Your task to perform on an android device: toggle notification dots Image 0: 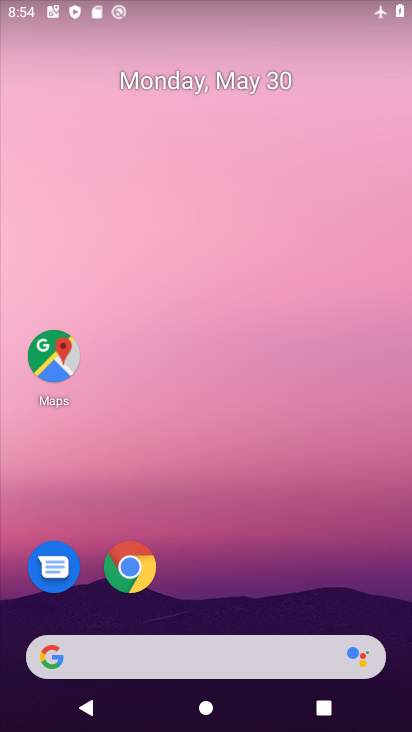
Step 0: drag from (208, 566) to (259, 91)
Your task to perform on an android device: toggle notification dots Image 1: 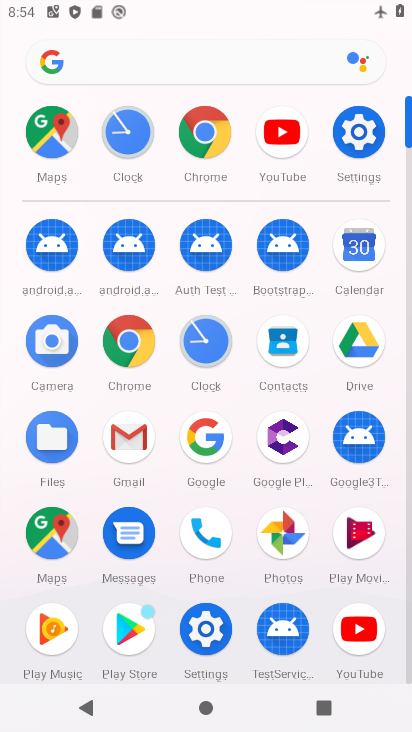
Step 1: click (341, 149)
Your task to perform on an android device: toggle notification dots Image 2: 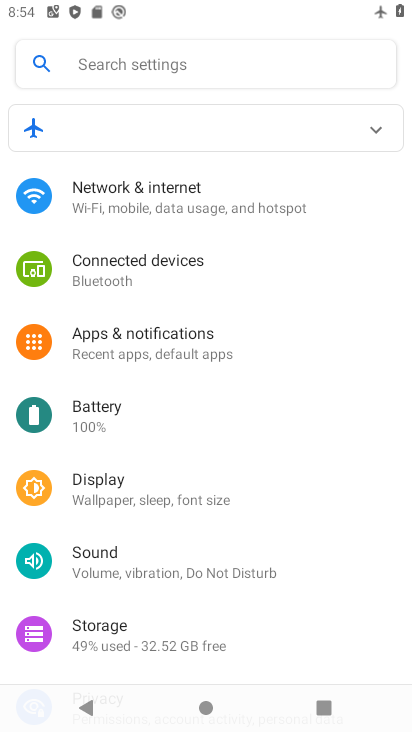
Step 2: click (211, 355)
Your task to perform on an android device: toggle notification dots Image 3: 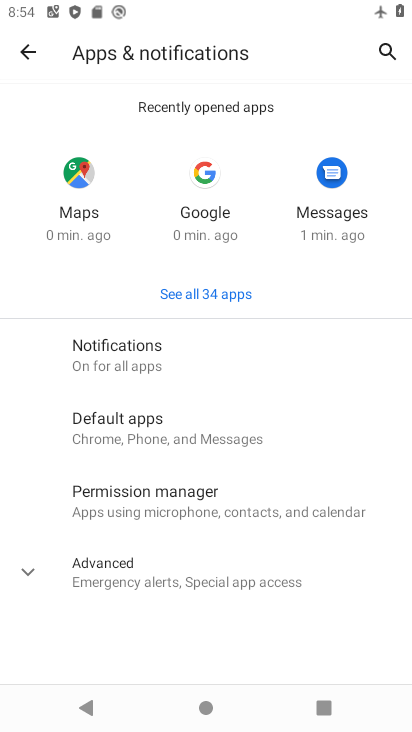
Step 3: click (211, 355)
Your task to perform on an android device: toggle notification dots Image 4: 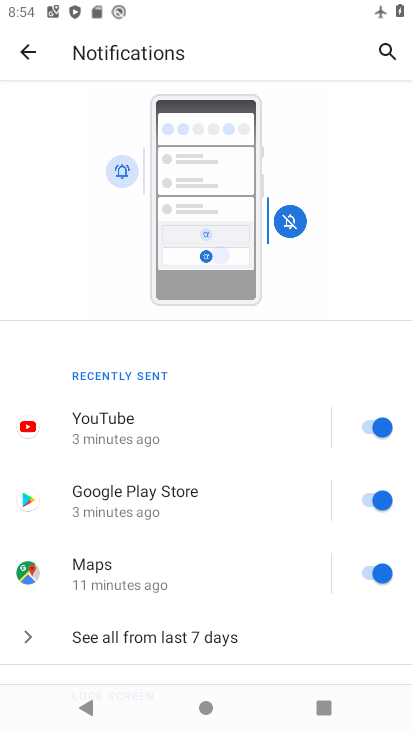
Step 4: drag from (174, 599) to (192, 259)
Your task to perform on an android device: toggle notification dots Image 5: 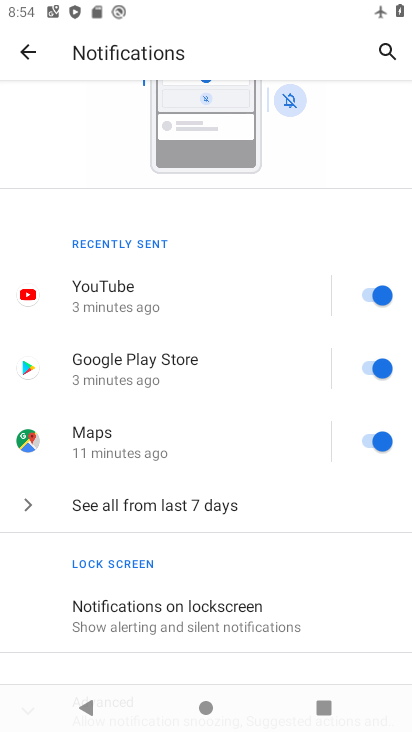
Step 5: drag from (181, 537) to (210, 143)
Your task to perform on an android device: toggle notification dots Image 6: 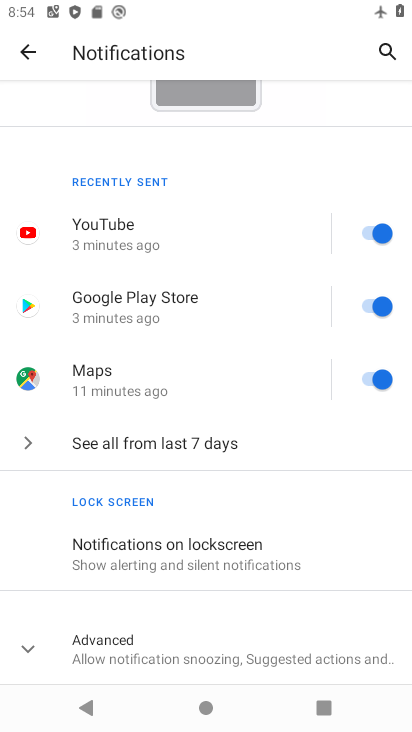
Step 6: click (182, 646)
Your task to perform on an android device: toggle notification dots Image 7: 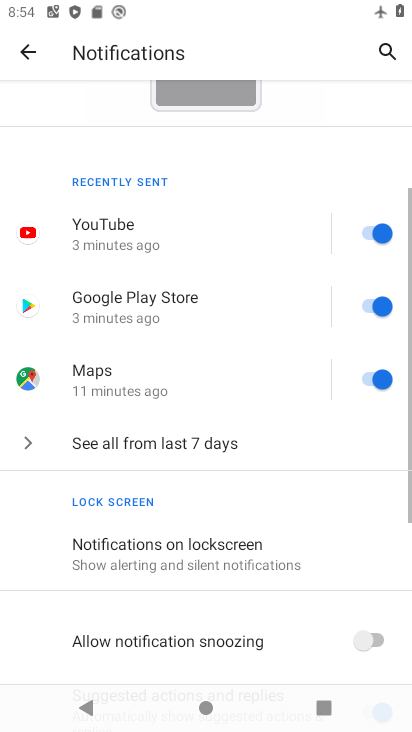
Step 7: drag from (182, 646) to (176, 285)
Your task to perform on an android device: toggle notification dots Image 8: 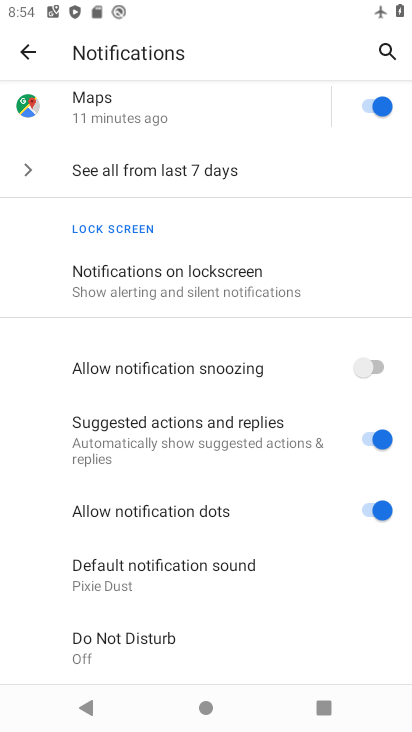
Step 8: click (373, 522)
Your task to perform on an android device: toggle notification dots Image 9: 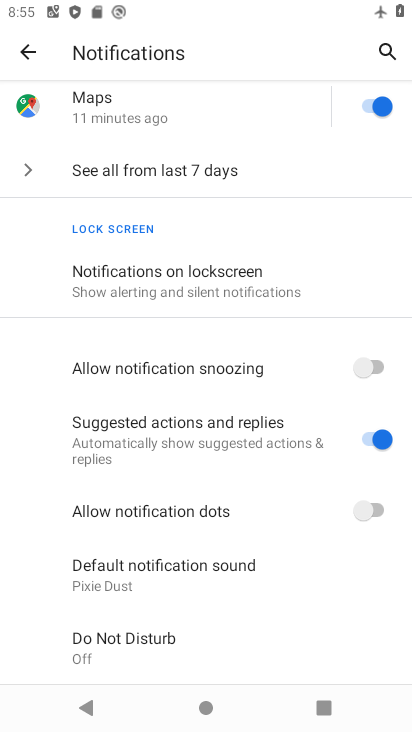
Step 9: task complete